Your task to perform on an android device: open a new tab in the chrome app Image 0: 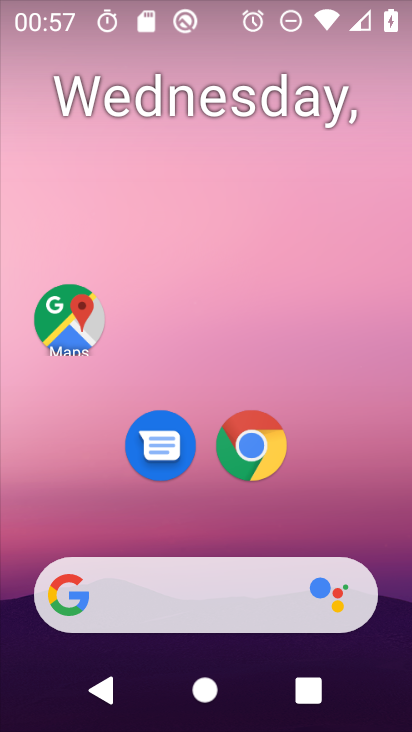
Step 0: click (248, 433)
Your task to perform on an android device: open a new tab in the chrome app Image 1: 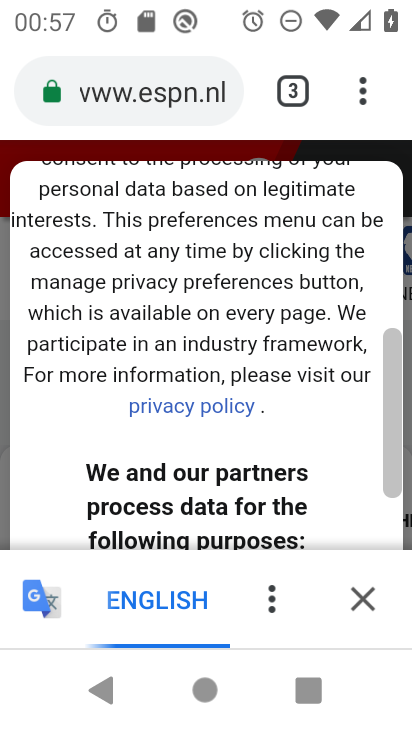
Step 1: click (362, 103)
Your task to perform on an android device: open a new tab in the chrome app Image 2: 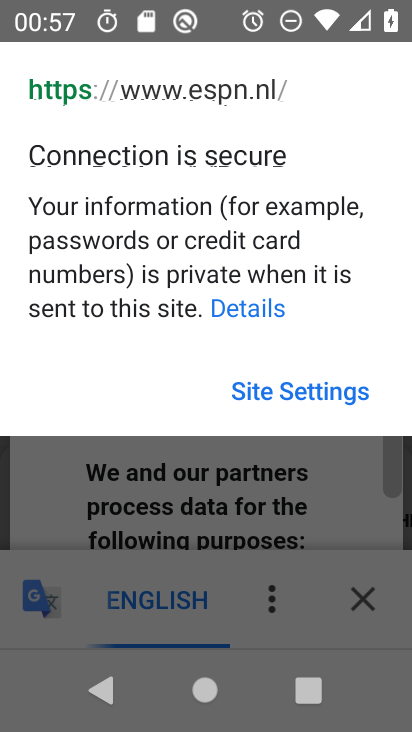
Step 2: press back button
Your task to perform on an android device: open a new tab in the chrome app Image 3: 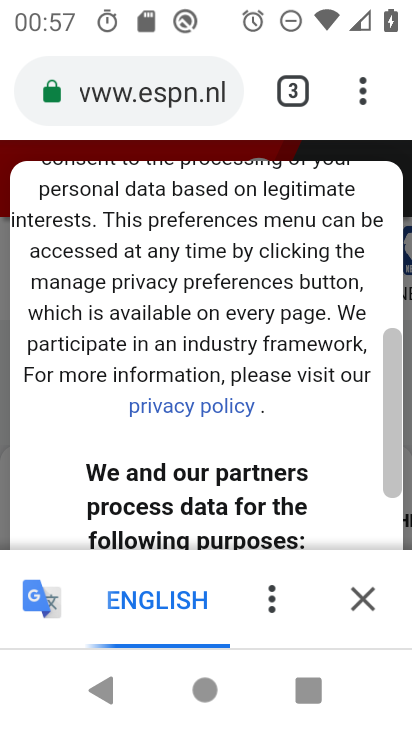
Step 3: click (397, 109)
Your task to perform on an android device: open a new tab in the chrome app Image 4: 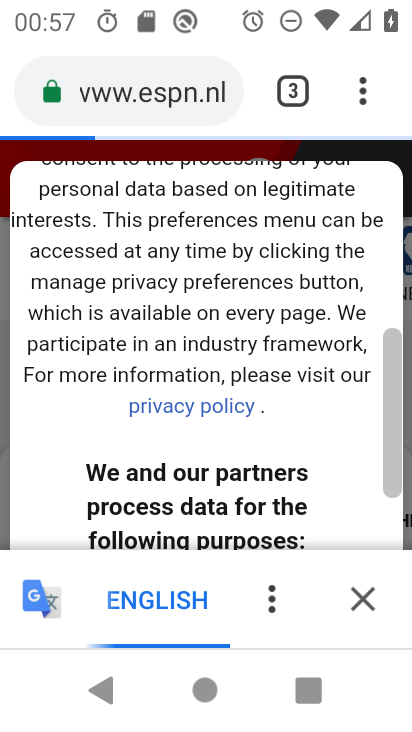
Step 4: click (403, 103)
Your task to perform on an android device: open a new tab in the chrome app Image 5: 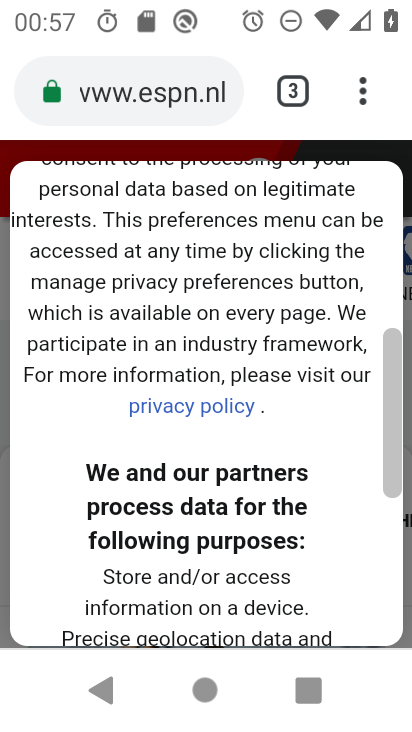
Step 5: click (396, 122)
Your task to perform on an android device: open a new tab in the chrome app Image 6: 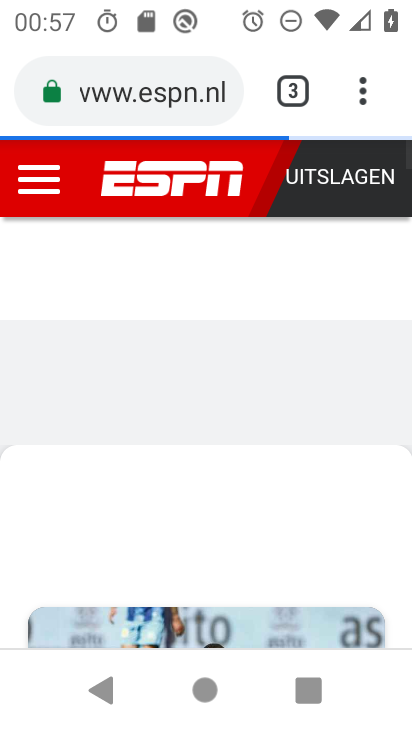
Step 6: click (400, 124)
Your task to perform on an android device: open a new tab in the chrome app Image 7: 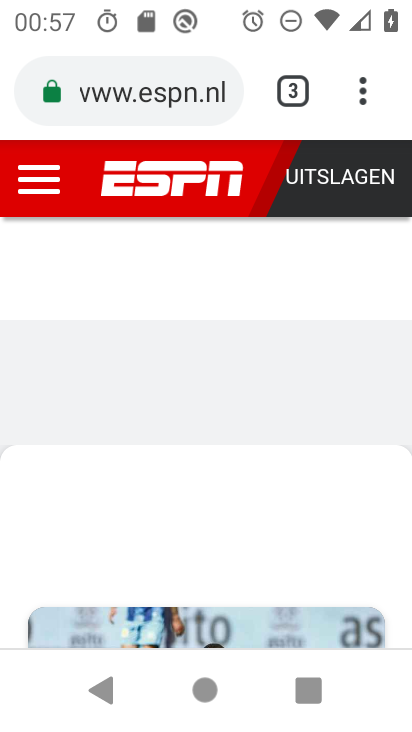
Step 7: click (369, 125)
Your task to perform on an android device: open a new tab in the chrome app Image 8: 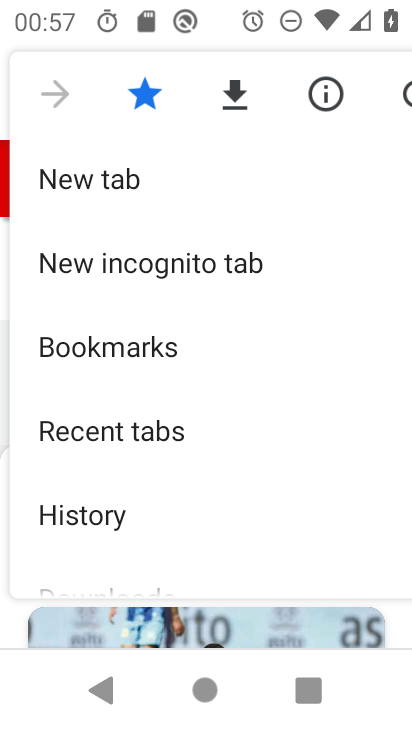
Step 8: drag from (260, 513) to (270, 441)
Your task to perform on an android device: open a new tab in the chrome app Image 9: 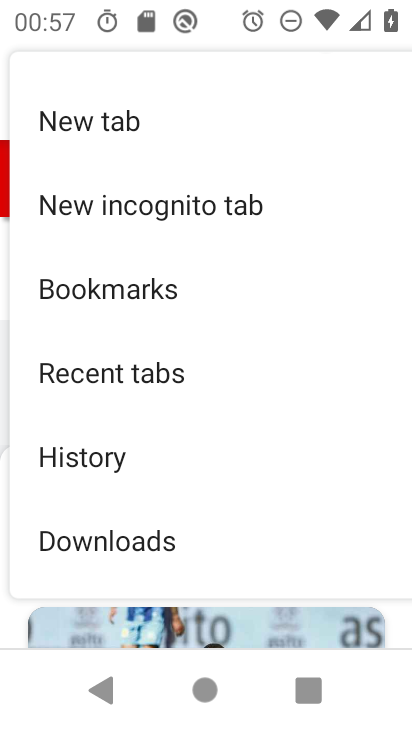
Step 9: click (188, 122)
Your task to perform on an android device: open a new tab in the chrome app Image 10: 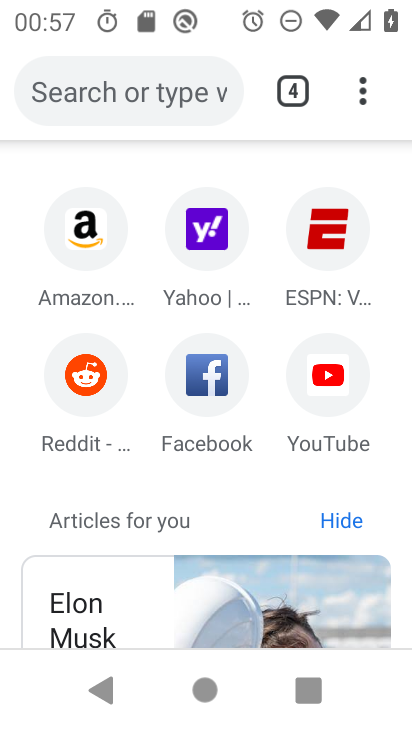
Step 10: task complete